Your task to perform on an android device: check data usage Image 0: 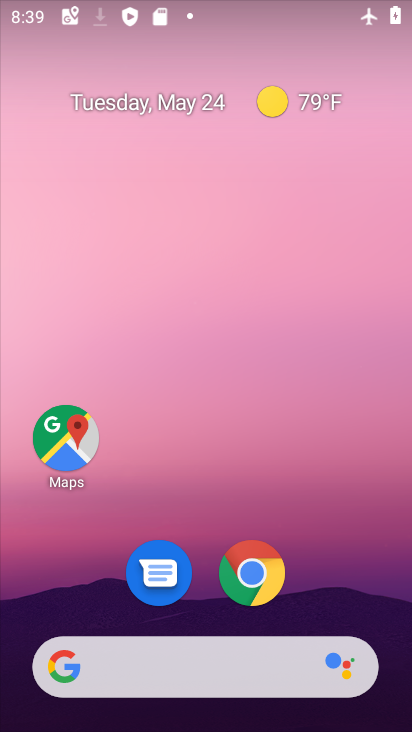
Step 0: click (157, 118)
Your task to perform on an android device: check data usage Image 1: 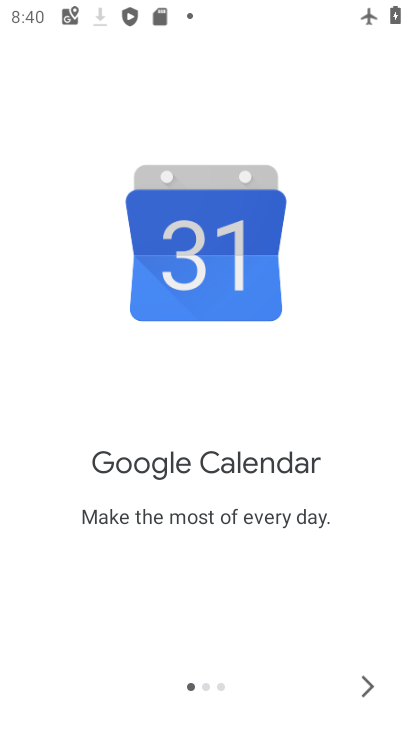
Step 1: press back button
Your task to perform on an android device: check data usage Image 2: 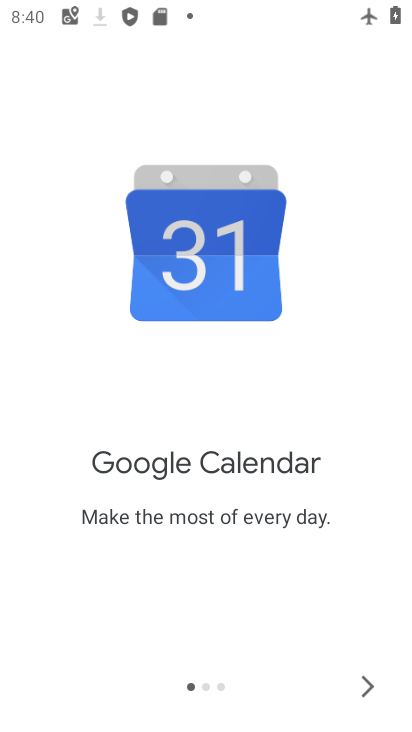
Step 2: press back button
Your task to perform on an android device: check data usage Image 3: 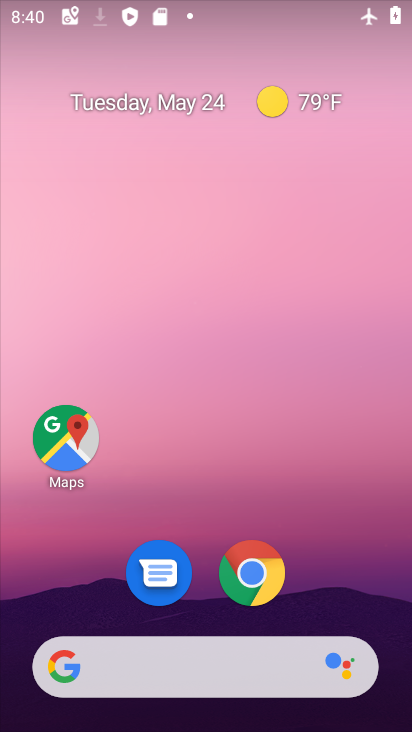
Step 3: press back button
Your task to perform on an android device: check data usage Image 4: 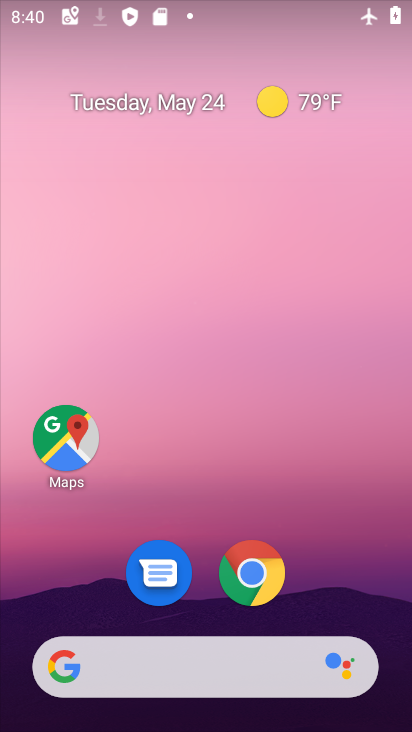
Step 4: press back button
Your task to perform on an android device: check data usage Image 5: 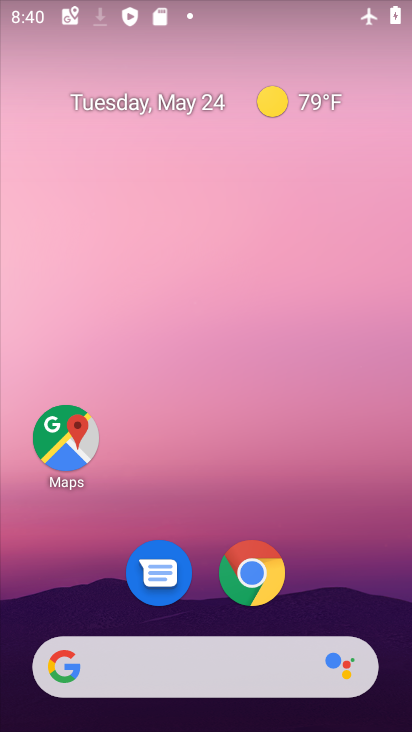
Step 5: press back button
Your task to perform on an android device: check data usage Image 6: 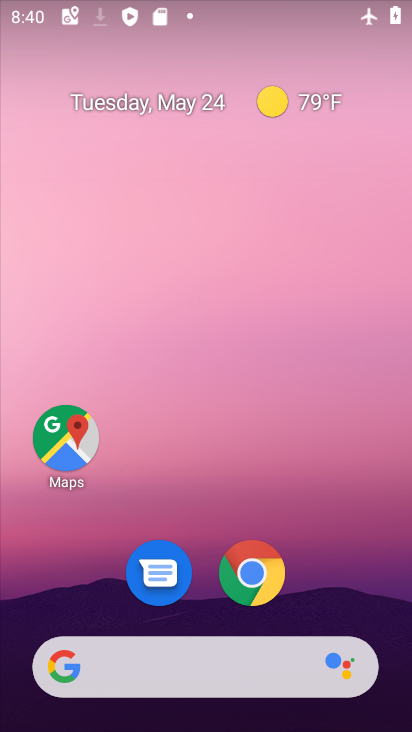
Step 6: press back button
Your task to perform on an android device: check data usage Image 7: 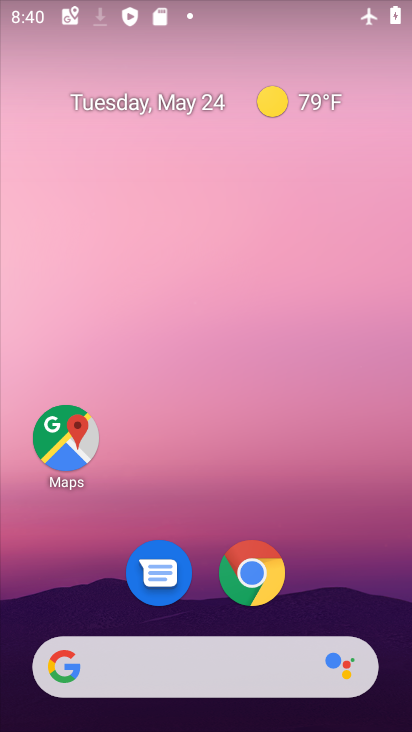
Step 7: drag from (317, 613) to (247, 129)
Your task to perform on an android device: check data usage Image 8: 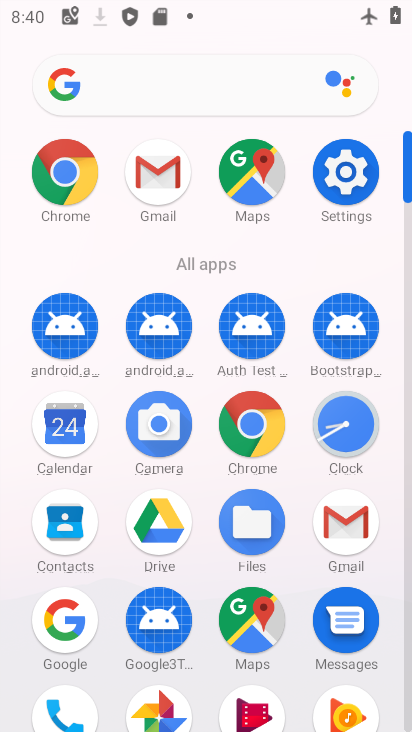
Step 8: drag from (365, 561) to (200, 21)
Your task to perform on an android device: check data usage Image 9: 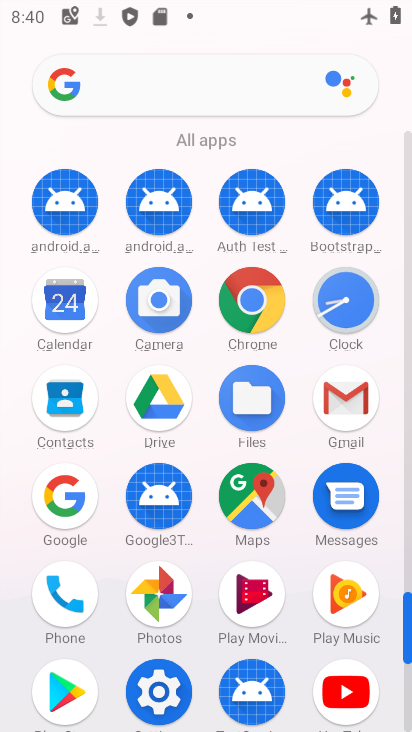
Step 9: click (155, 687)
Your task to perform on an android device: check data usage Image 10: 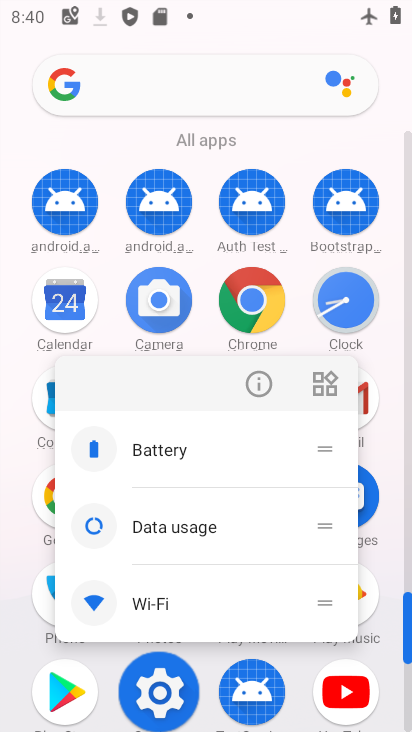
Step 10: click (158, 684)
Your task to perform on an android device: check data usage Image 11: 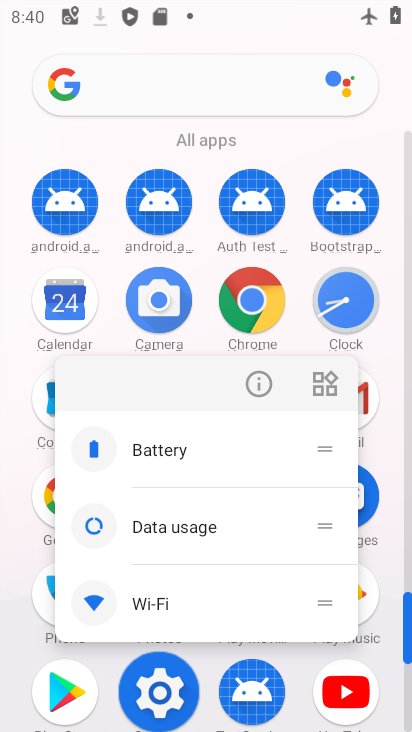
Step 11: click (166, 680)
Your task to perform on an android device: check data usage Image 12: 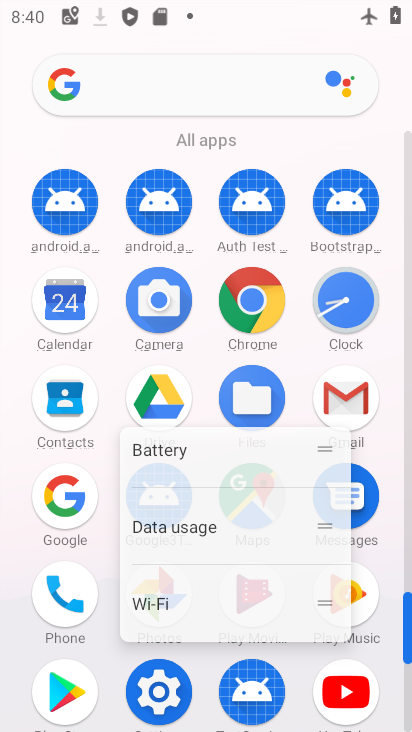
Step 12: click (166, 680)
Your task to perform on an android device: check data usage Image 13: 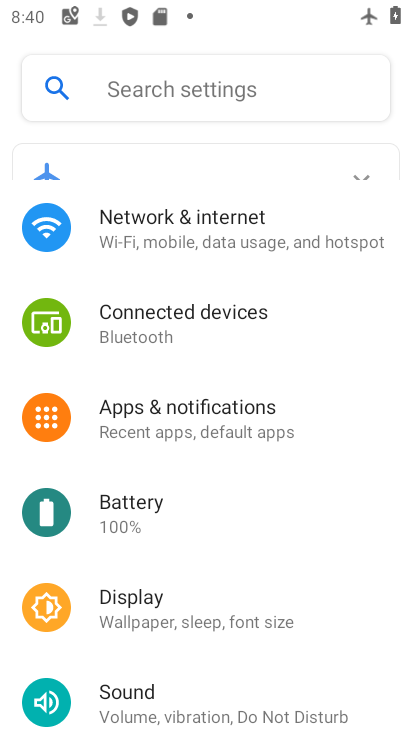
Step 13: click (169, 680)
Your task to perform on an android device: check data usage Image 14: 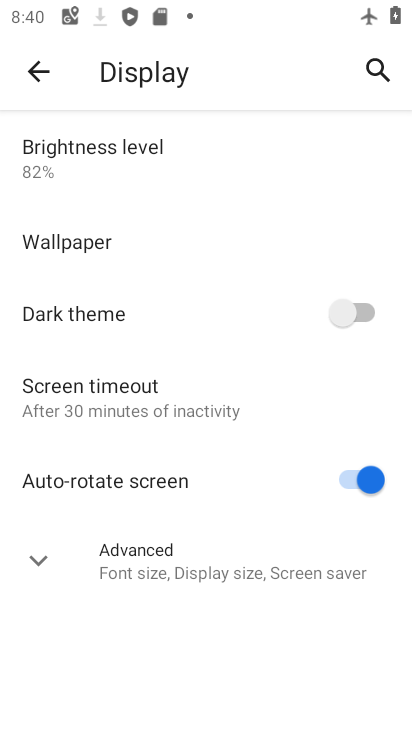
Step 14: click (28, 76)
Your task to perform on an android device: check data usage Image 15: 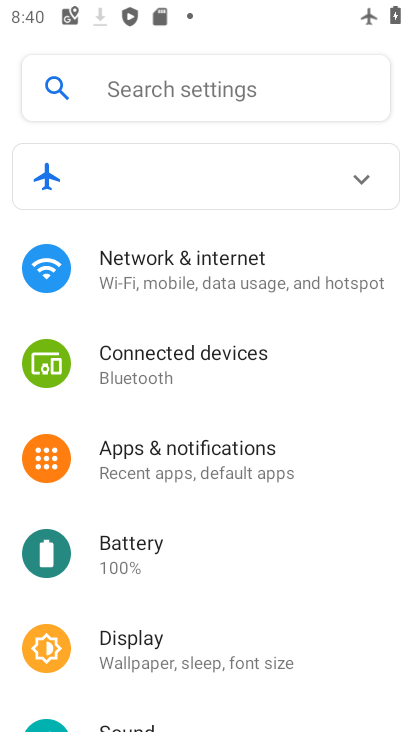
Step 15: click (136, 278)
Your task to perform on an android device: check data usage Image 16: 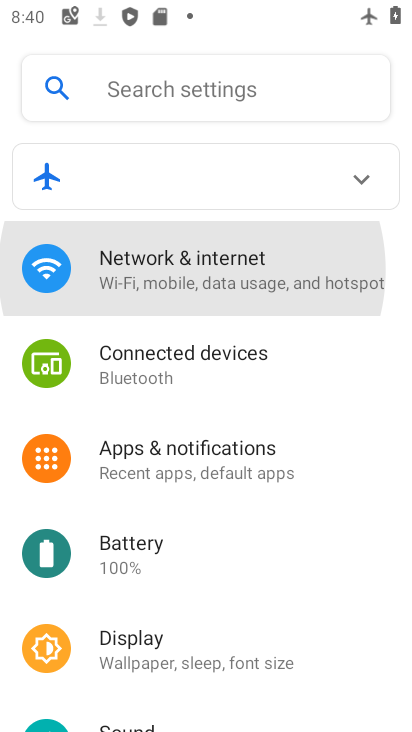
Step 16: click (137, 278)
Your task to perform on an android device: check data usage Image 17: 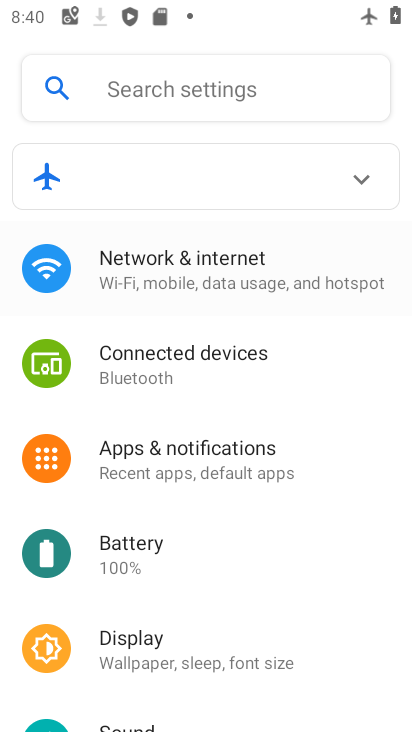
Step 17: click (138, 278)
Your task to perform on an android device: check data usage Image 18: 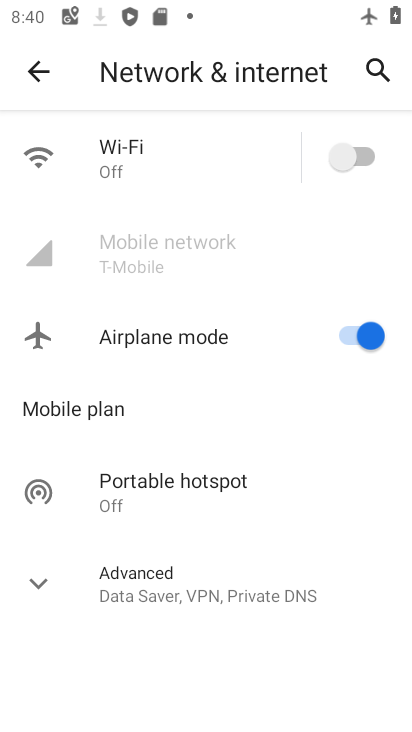
Step 18: click (364, 336)
Your task to perform on an android device: check data usage Image 19: 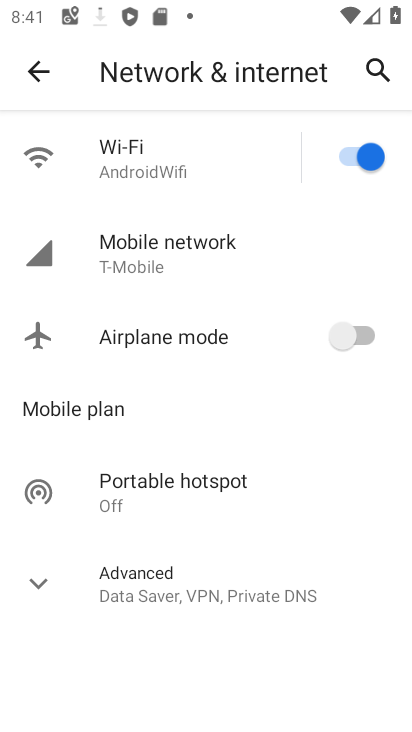
Step 19: task complete